Your task to perform on an android device: Open Youtube and go to the subscriptions tab Image 0: 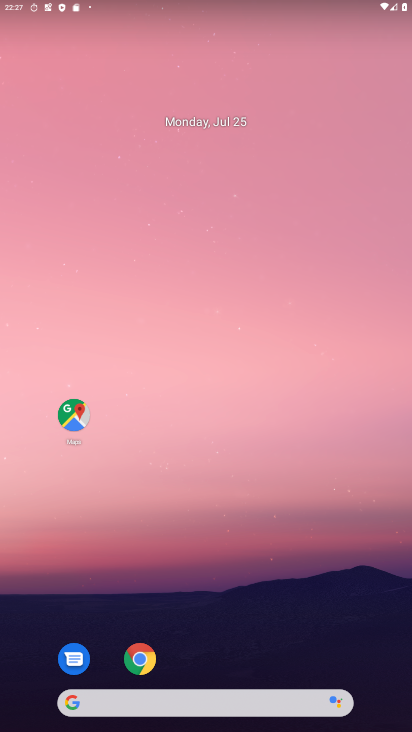
Step 0: drag from (224, 650) to (227, 171)
Your task to perform on an android device: Open Youtube and go to the subscriptions tab Image 1: 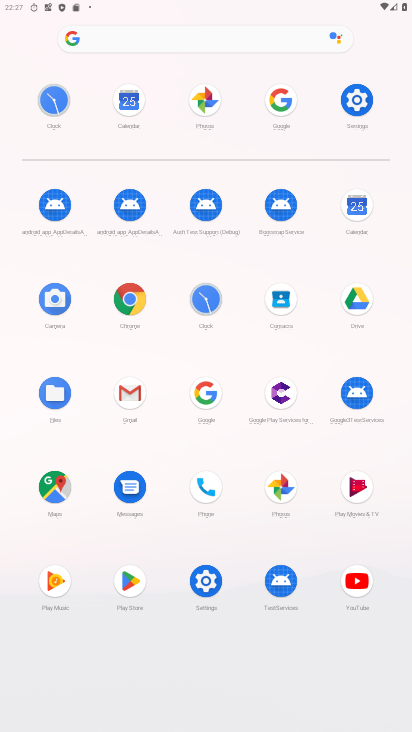
Step 1: click (355, 594)
Your task to perform on an android device: Open Youtube and go to the subscriptions tab Image 2: 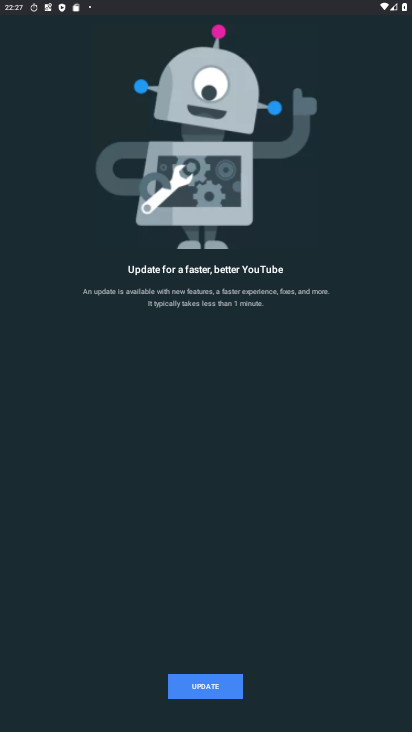
Step 2: click (208, 682)
Your task to perform on an android device: Open Youtube and go to the subscriptions tab Image 3: 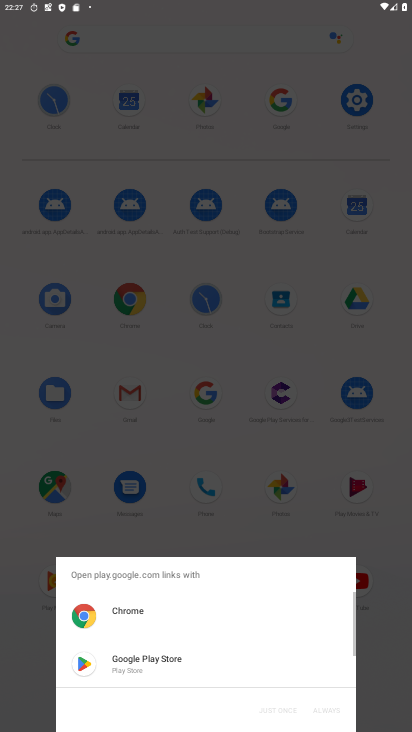
Step 3: click (186, 672)
Your task to perform on an android device: Open Youtube and go to the subscriptions tab Image 4: 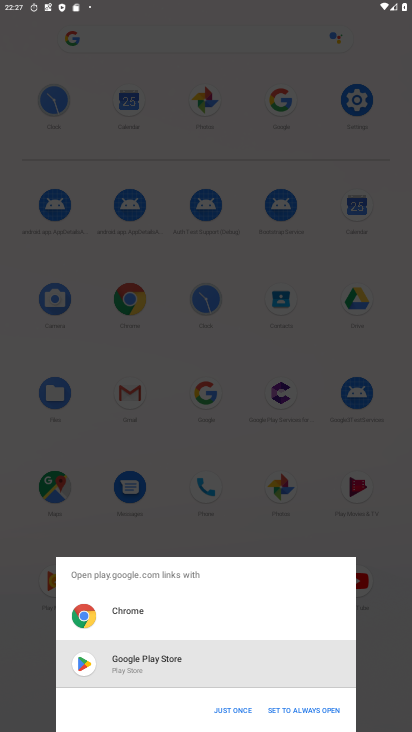
Step 4: click (231, 704)
Your task to perform on an android device: Open Youtube and go to the subscriptions tab Image 5: 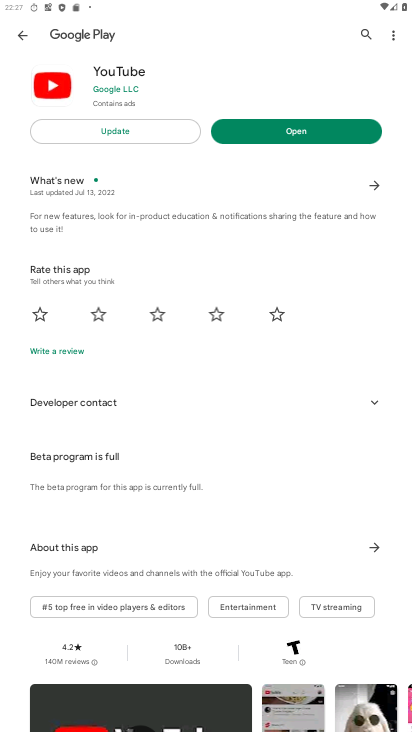
Step 5: click (114, 130)
Your task to perform on an android device: Open Youtube and go to the subscriptions tab Image 6: 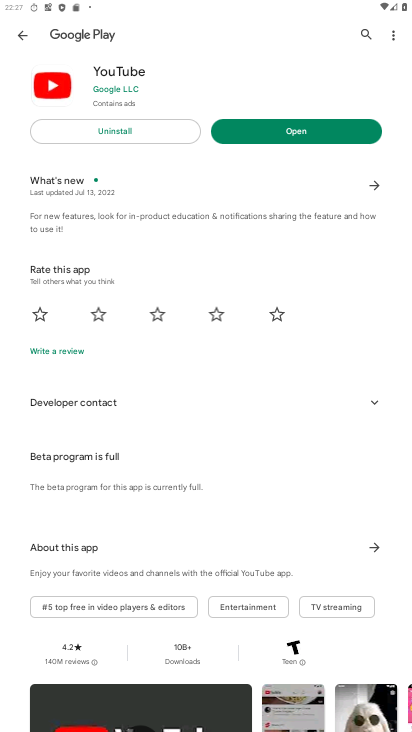
Step 6: click (293, 131)
Your task to perform on an android device: Open Youtube and go to the subscriptions tab Image 7: 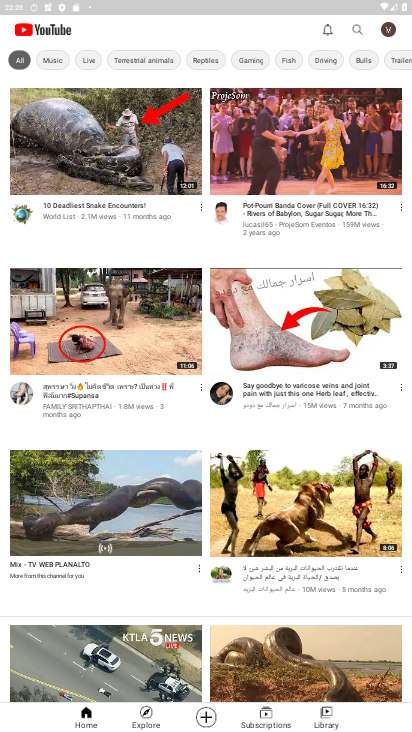
Step 7: click (267, 712)
Your task to perform on an android device: Open Youtube and go to the subscriptions tab Image 8: 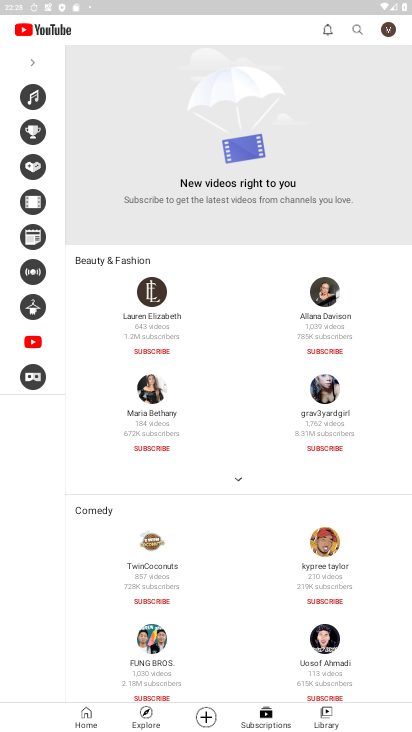
Step 8: task complete